Your task to perform on an android device: check storage Image 0: 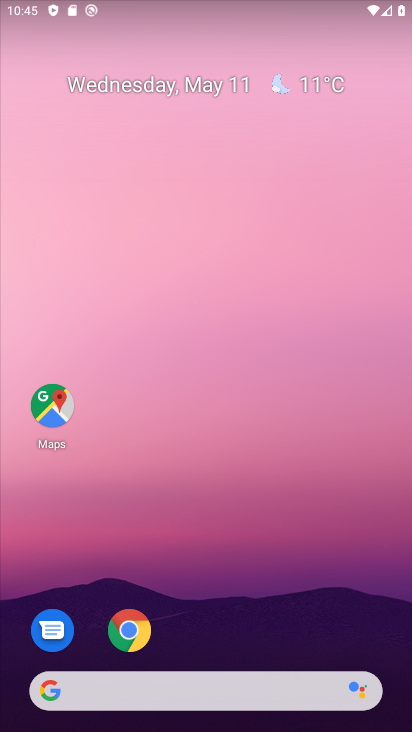
Step 0: drag from (174, 601) to (193, 316)
Your task to perform on an android device: check storage Image 1: 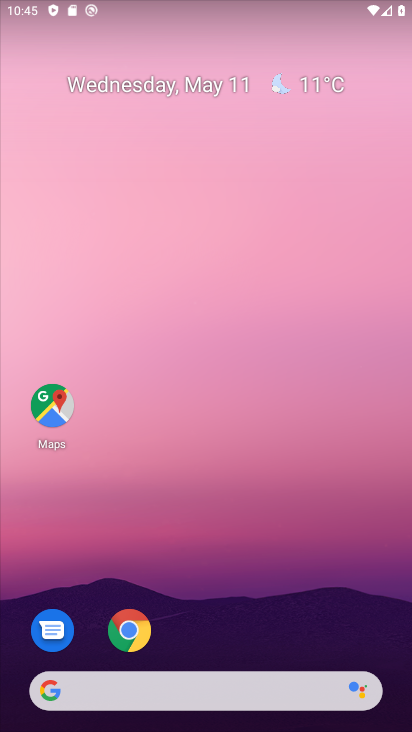
Step 1: drag from (216, 633) to (263, 245)
Your task to perform on an android device: check storage Image 2: 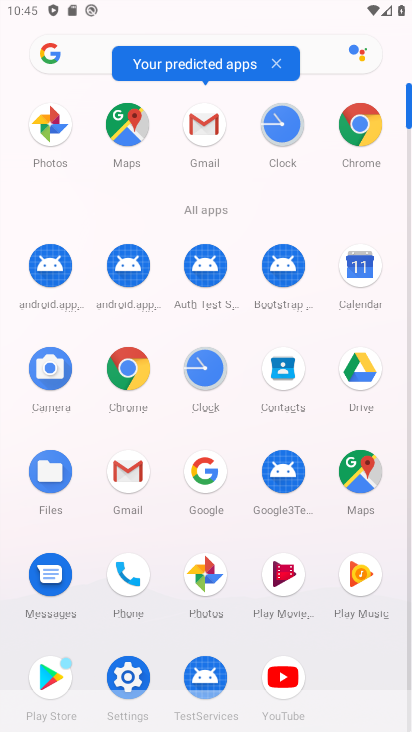
Step 2: click (124, 670)
Your task to perform on an android device: check storage Image 3: 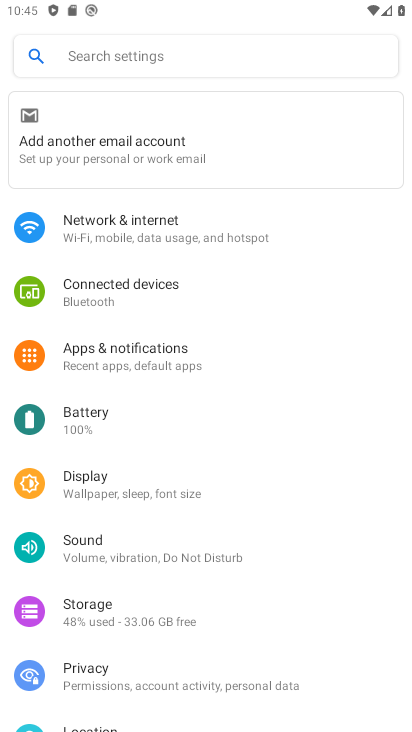
Step 3: click (130, 611)
Your task to perform on an android device: check storage Image 4: 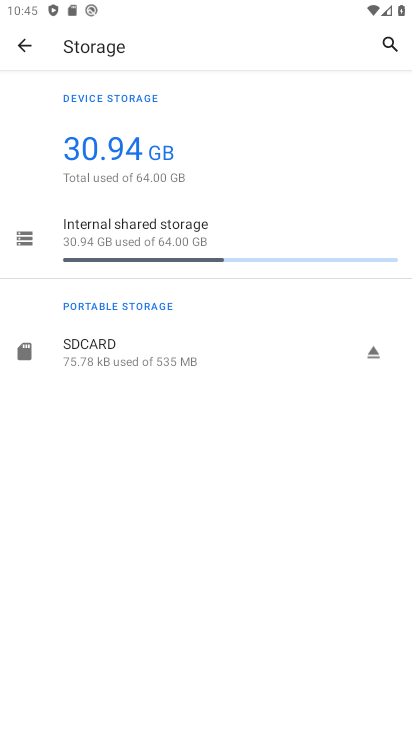
Step 4: task complete